Your task to perform on an android device: turn on the 24-hour format for clock Image 0: 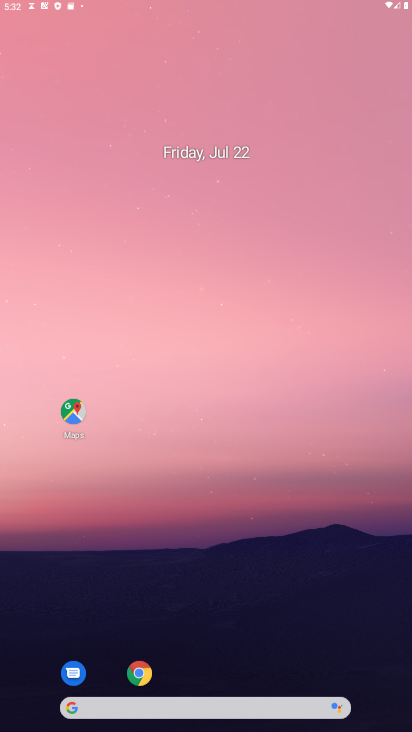
Step 0: press home button
Your task to perform on an android device: turn on the 24-hour format for clock Image 1: 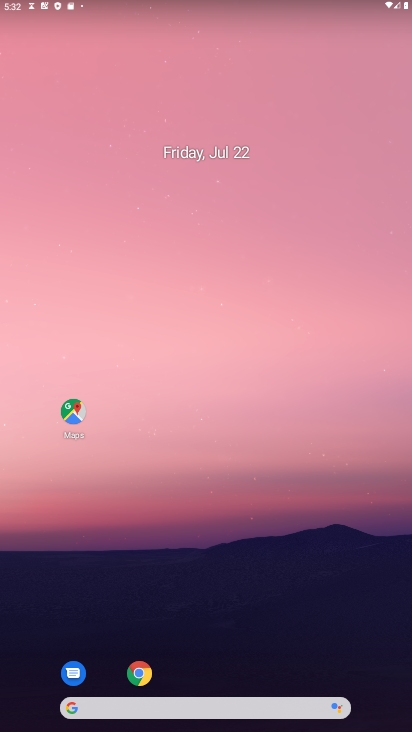
Step 1: drag from (242, 665) to (322, 157)
Your task to perform on an android device: turn on the 24-hour format for clock Image 2: 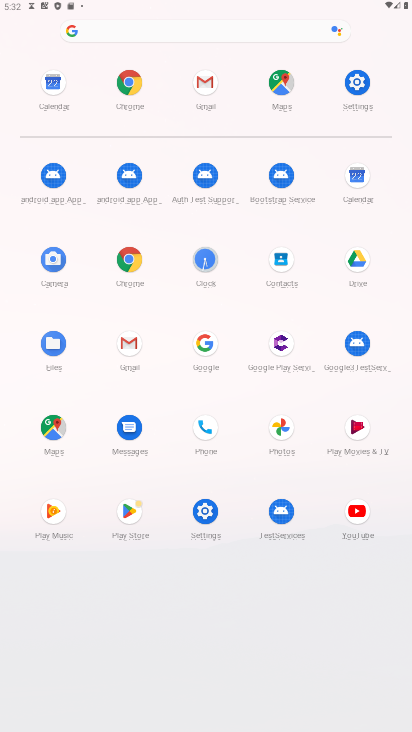
Step 2: click (356, 87)
Your task to perform on an android device: turn on the 24-hour format for clock Image 3: 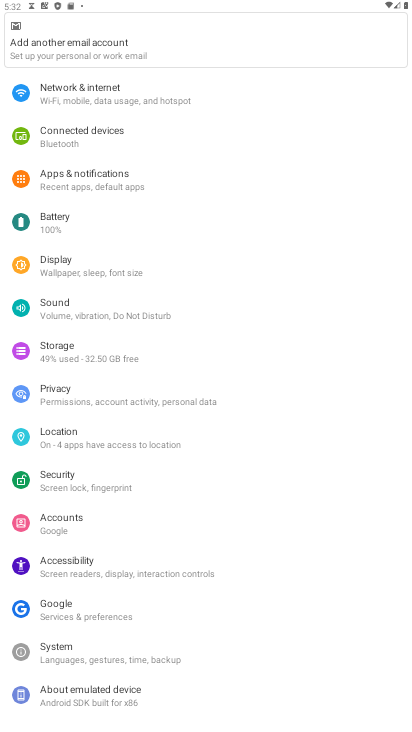
Step 3: click (66, 648)
Your task to perform on an android device: turn on the 24-hour format for clock Image 4: 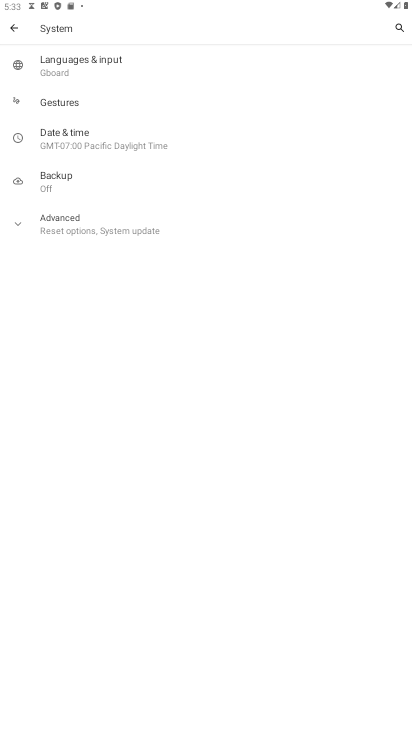
Step 4: click (83, 140)
Your task to perform on an android device: turn on the 24-hour format for clock Image 5: 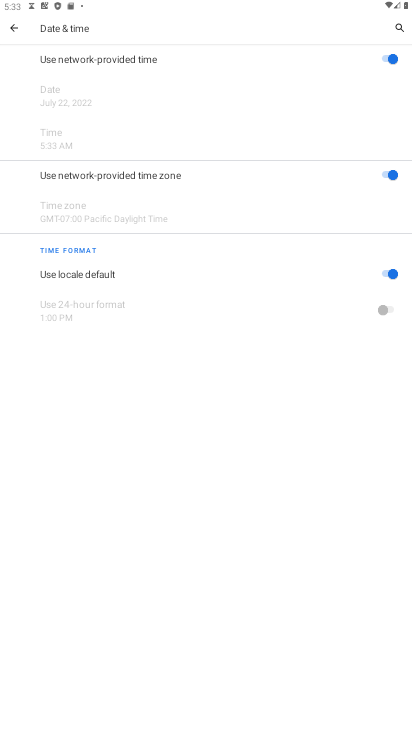
Step 5: click (391, 271)
Your task to perform on an android device: turn on the 24-hour format for clock Image 6: 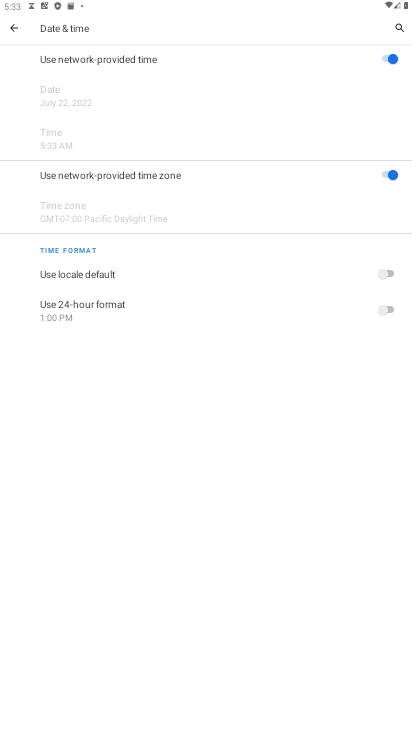
Step 6: click (386, 304)
Your task to perform on an android device: turn on the 24-hour format for clock Image 7: 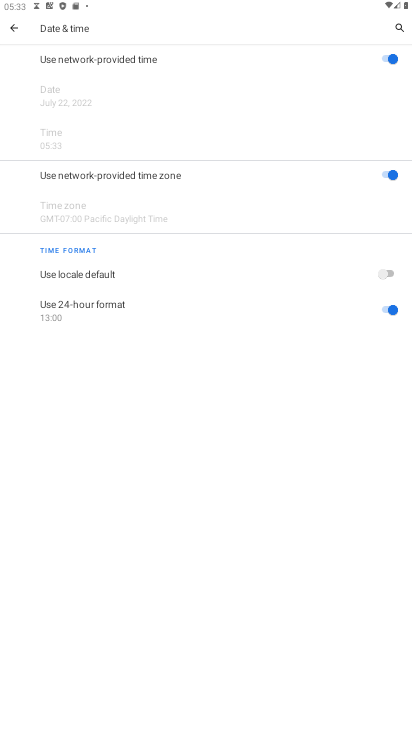
Step 7: task complete